Your task to perform on an android device: show emergency info Image 0: 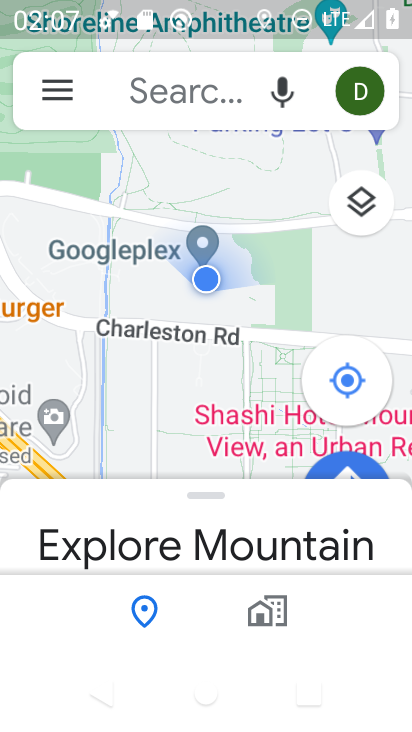
Step 0: press home button
Your task to perform on an android device: show emergency info Image 1: 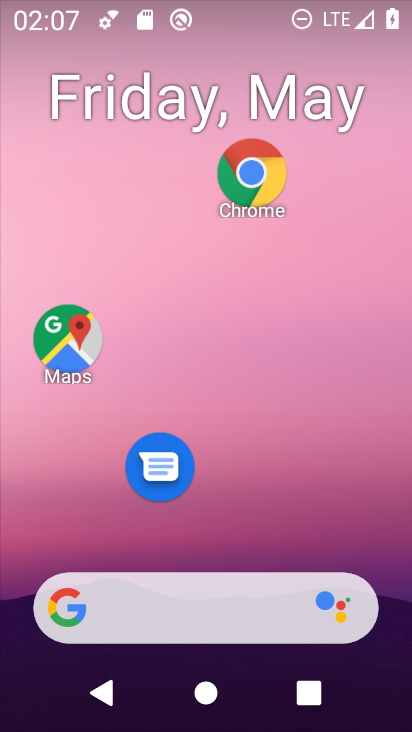
Step 1: drag from (273, 648) to (246, 201)
Your task to perform on an android device: show emergency info Image 2: 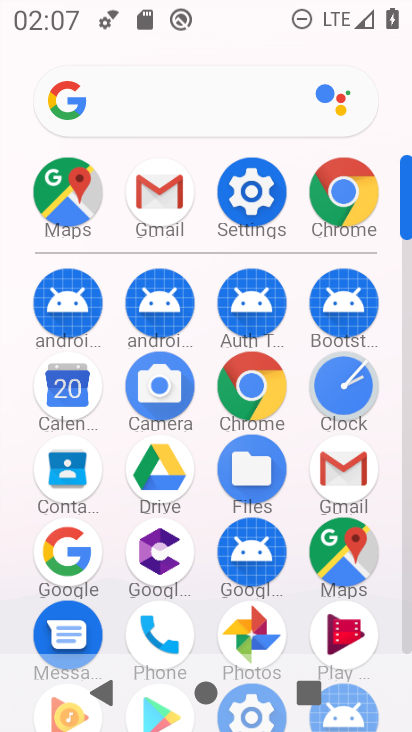
Step 2: click (228, 191)
Your task to perform on an android device: show emergency info Image 3: 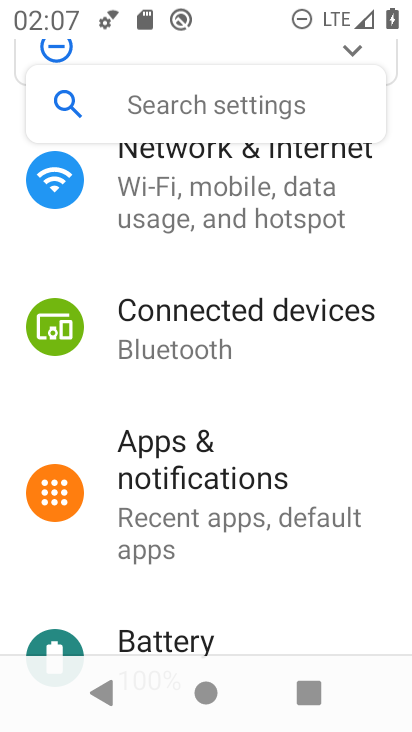
Step 3: click (143, 117)
Your task to perform on an android device: show emergency info Image 4: 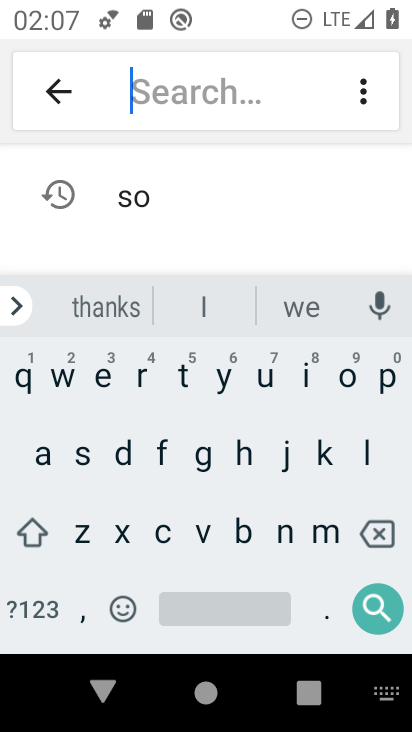
Step 4: click (96, 373)
Your task to perform on an android device: show emergency info Image 5: 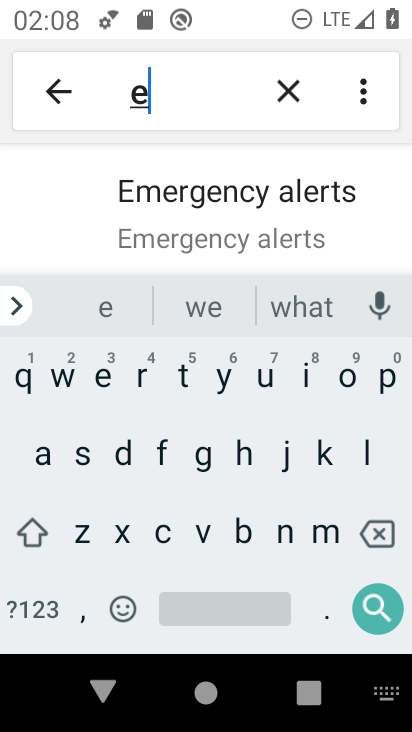
Step 5: click (332, 540)
Your task to perform on an android device: show emergency info Image 6: 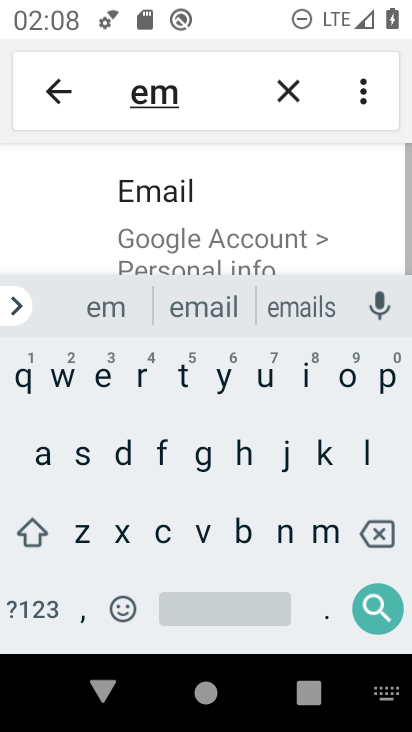
Step 6: click (95, 388)
Your task to perform on an android device: show emergency info Image 7: 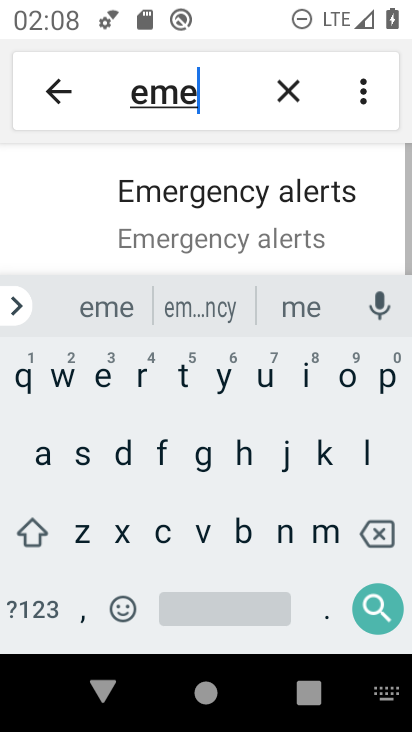
Step 7: click (208, 320)
Your task to perform on an android device: show emergency info Image 8: 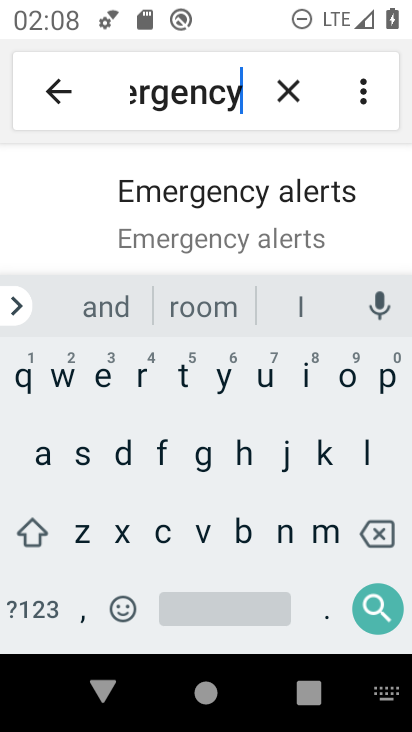
Step 8: click (305, 397)
Your task to perform on an android device: show emergency info Image 9: 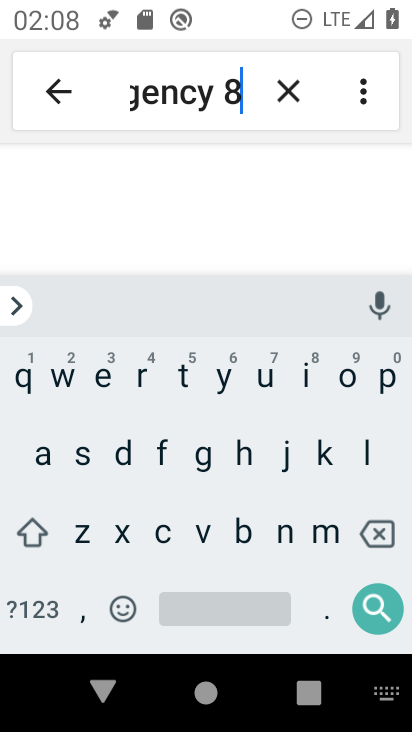
Step 9: click (365, 526)
Your task to perform on an android device: show emergency info Image 10: 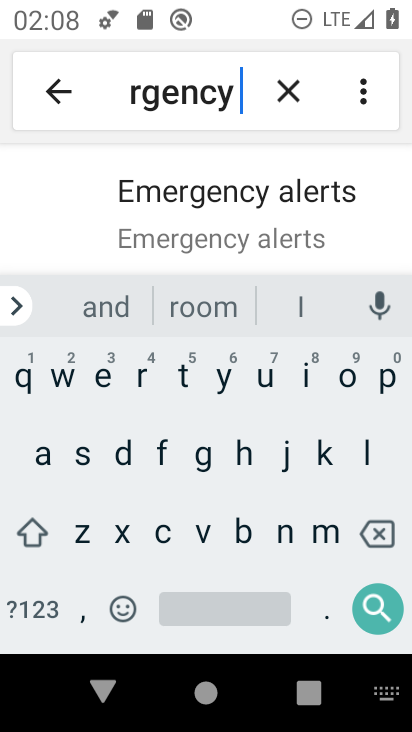
Step 10: click (299, 388)
Your task to perform on an android device: show emergency info Image 11: 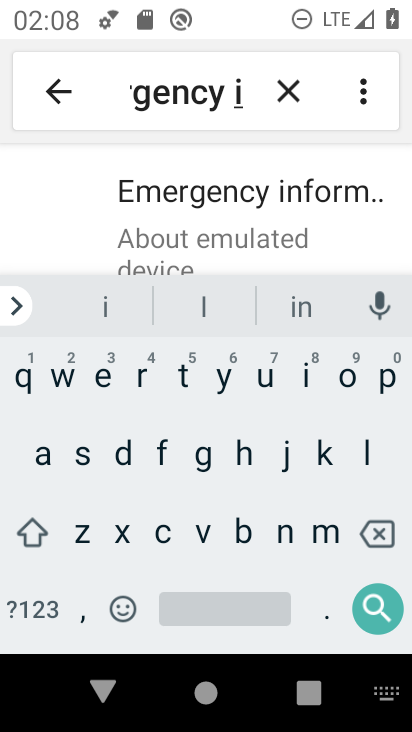
Step 11: click (195, 254)
Your task to perform on an android device: show emergency info Image 12: 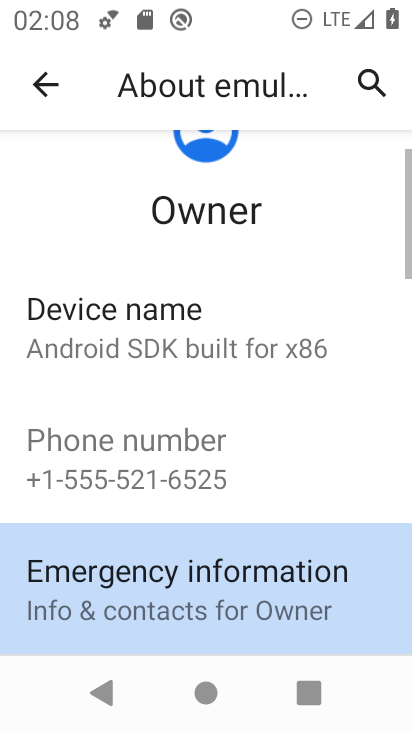
Step 12: click (208, 591)
Your task to perform on an android device: show emergency info Image 13: 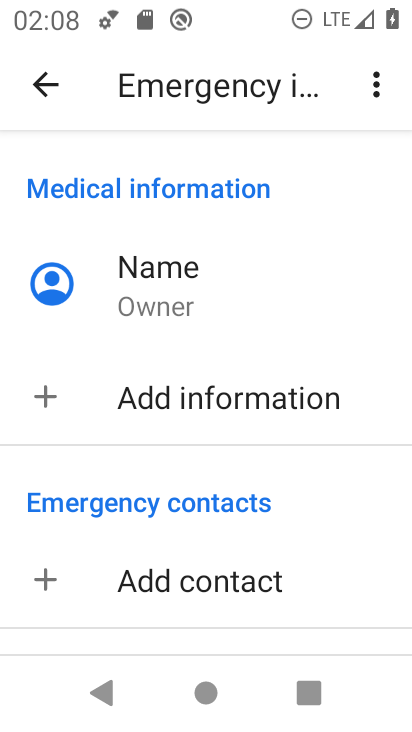
Step 13: task complete